Your task to perform on an android device: Go to privacy settings Image 0: 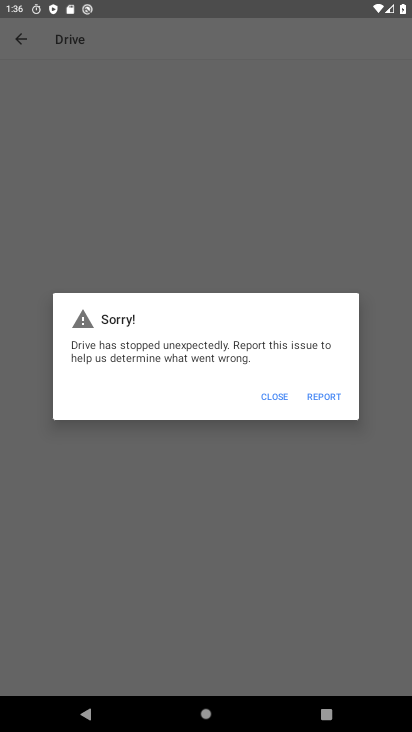
Step 0: press home button
Your task to perform on an android device: Go to privacy settings Image 1: 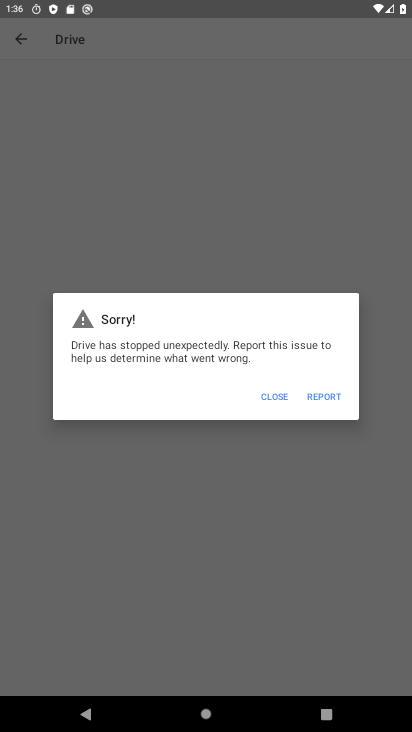
Step 1: press home button
Your task to perform on an android device: Go to privacy settings Image 2: 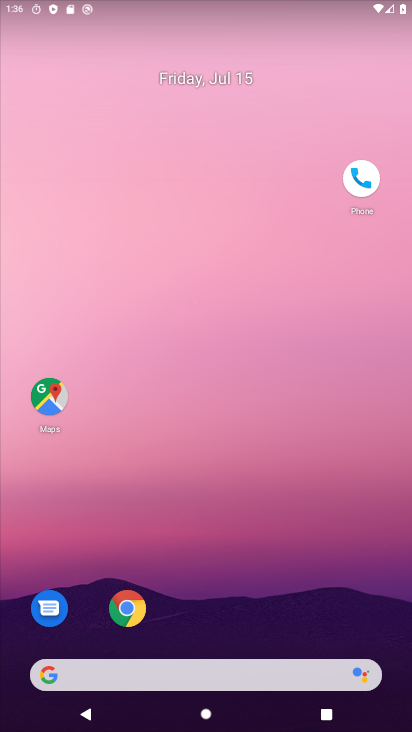
Step 2: drag from (163, 653) to (256, 145)
Your task to perform on an android device: Go to privacy settings Image 3: 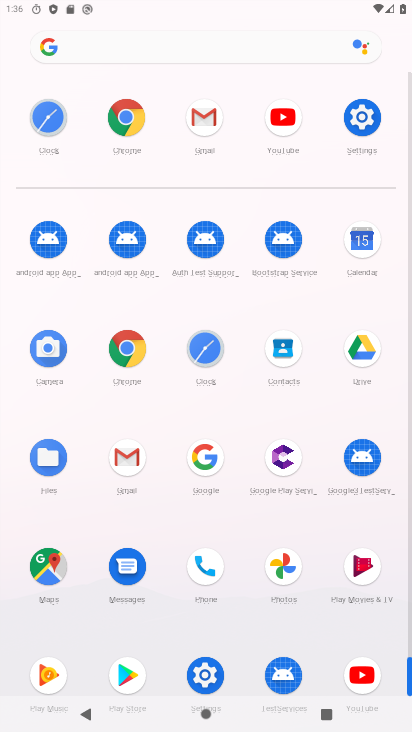
Step 3: click (199, 660)
Your task to perform on an android device: Go to privacy settings Image 4: 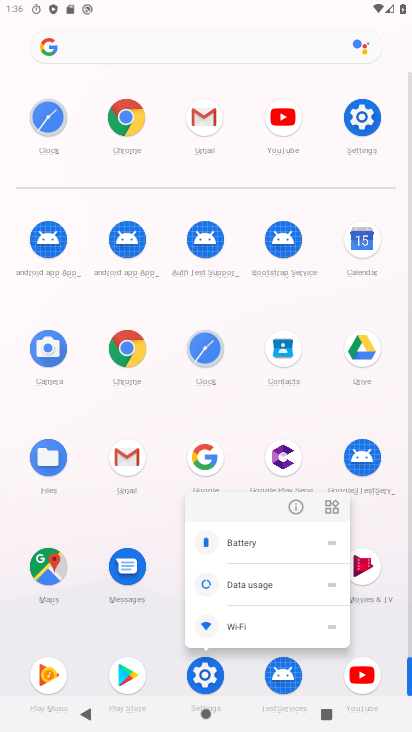
Step 4: click (297, 505)
Your task to perform on an android device: Go to privacy settings Image 5: 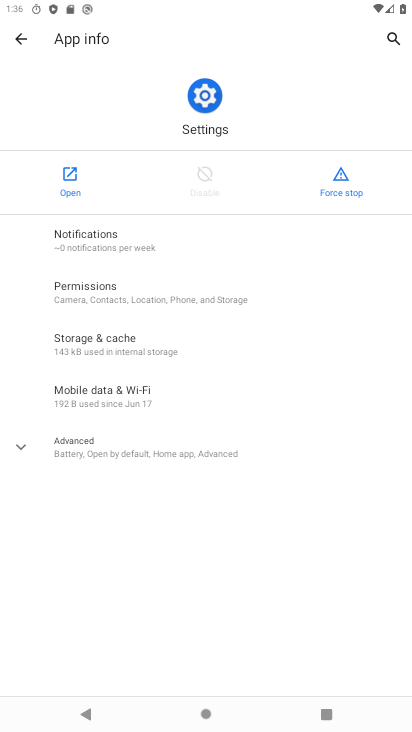
Step 5: click (51, 166)
Your task to perform on an android device: Go to privacy settings Image 6: 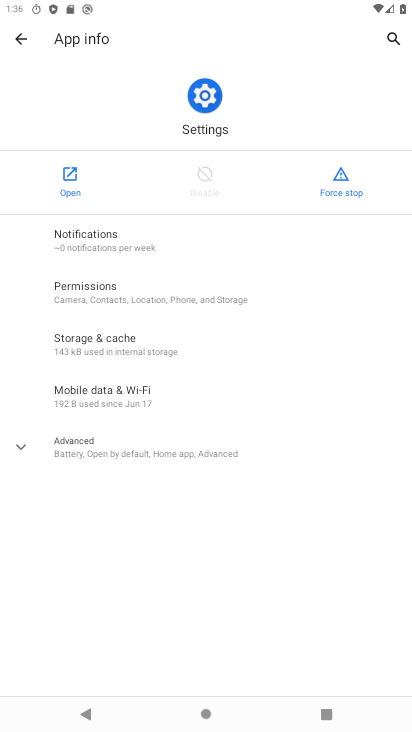
Step 6: click (60, 167)
Your task to perform on an android device: Go to privacy settings Image 7: 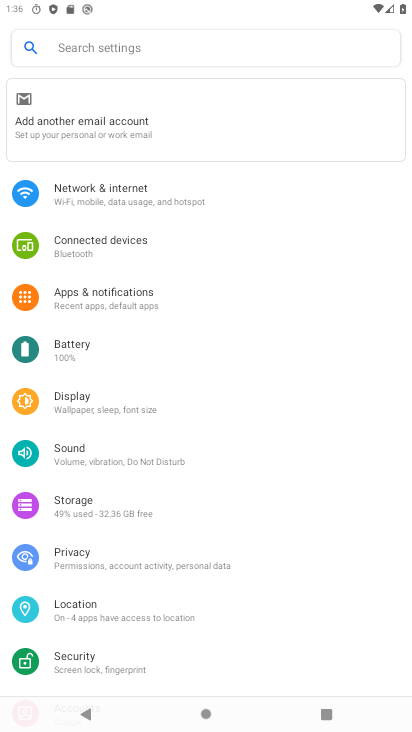
Step 7: click (94, 561)
Your task to perform on an android device: Go to privacy settings Image 8: 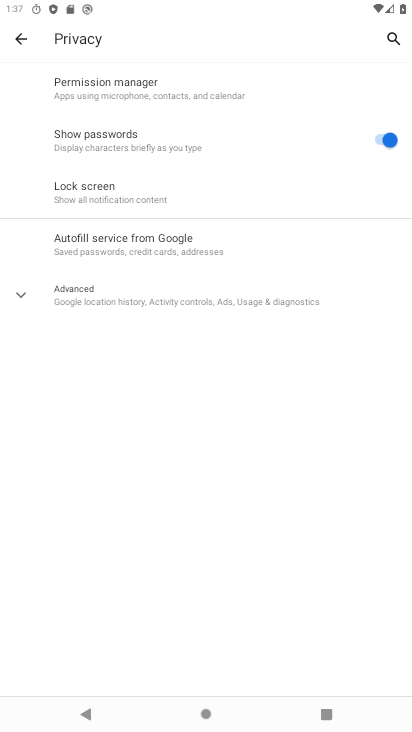
Step 8: task complete